Your task to perform on an android device: turn notification dots on Image 0: 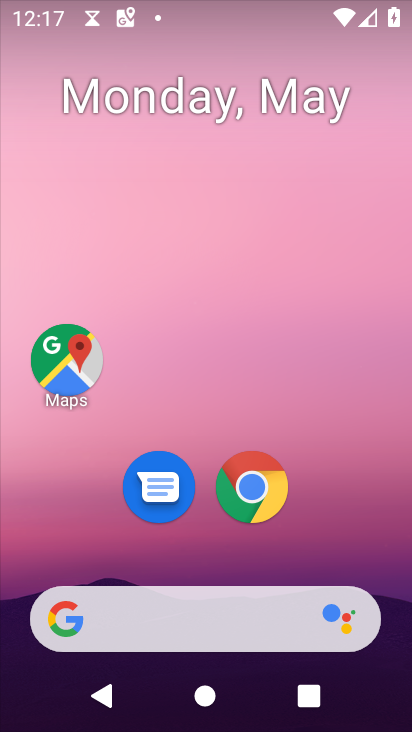
Step 0: drag from (204, 540) to (209, 43)
Your task to perform on an android device: turn notification dots on Image 1: 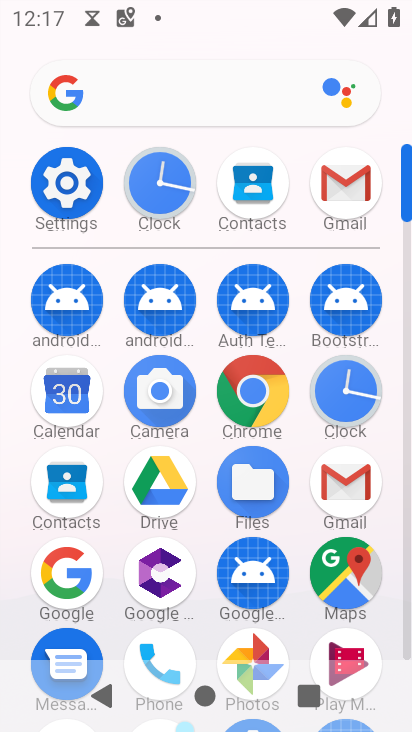
Step 1: click (72, 188)
Your task to perform on an android device: turn notification dots on Image 2: 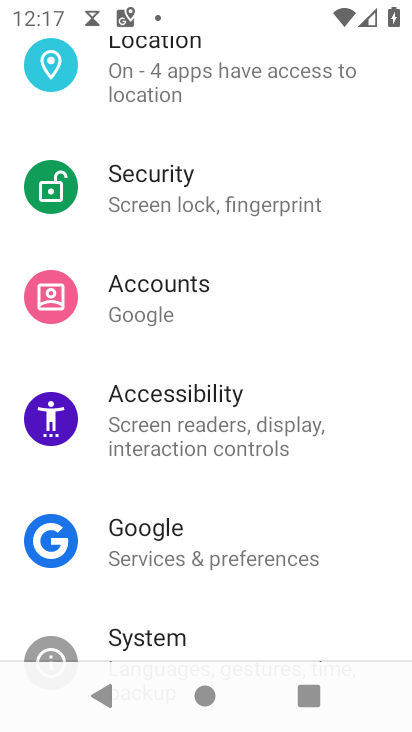
Step 2: drag from (213, 232) to (318, 701)
Your task to perform on an android device: turn notification dots on Image 3: 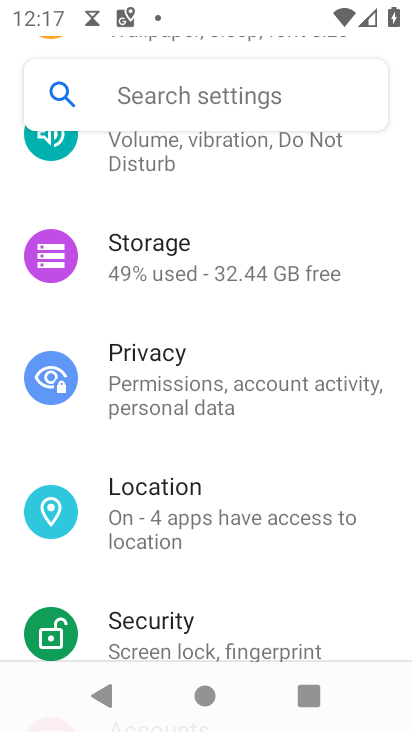
Step 3: drag from (315, 298) to (295, 720)
Your task to perform on an android device: turn notification dots on Image 4: 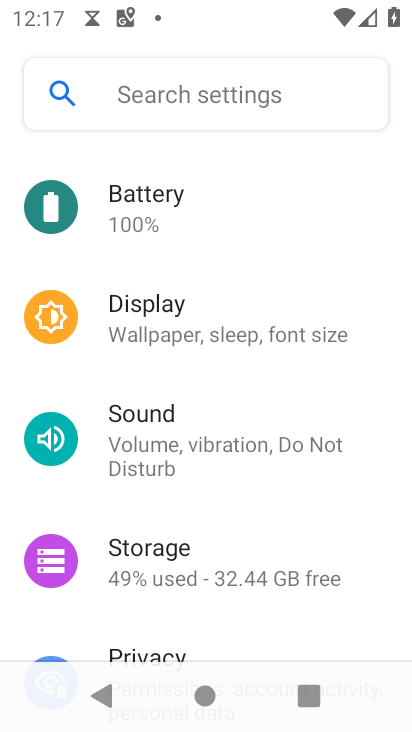
Step 4: drag from (218, 357) to (228, 659)
Your task to perform on an android device: turn notification dots on Image 5: 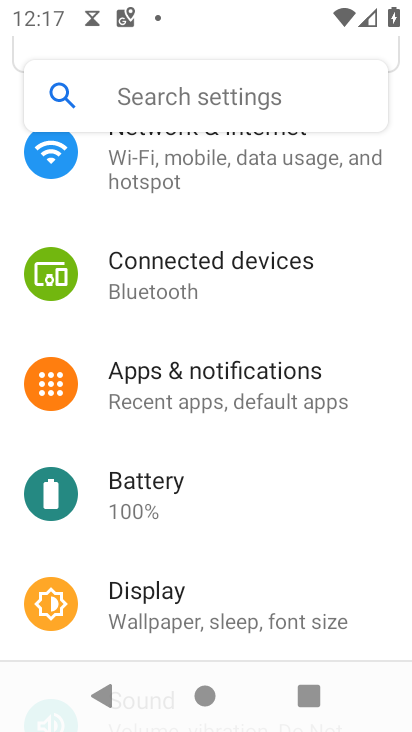
Step 5: click (234, 375)
Your task to perform on an android device: turn notification dots on Image 6: 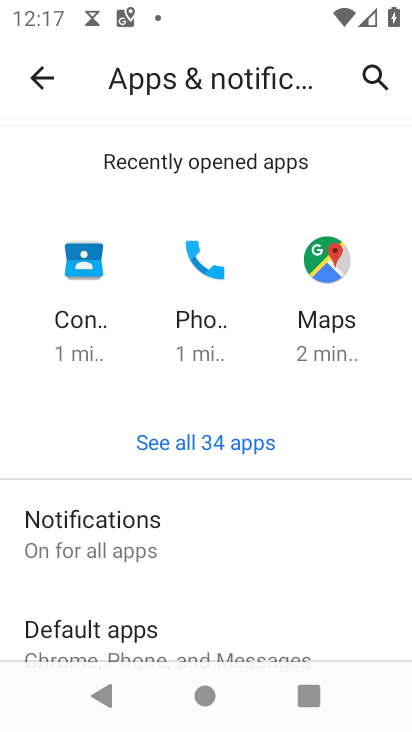
Step 6: click (224, 544)
Your task to perform on an android device: turn notification dots on Image 7: 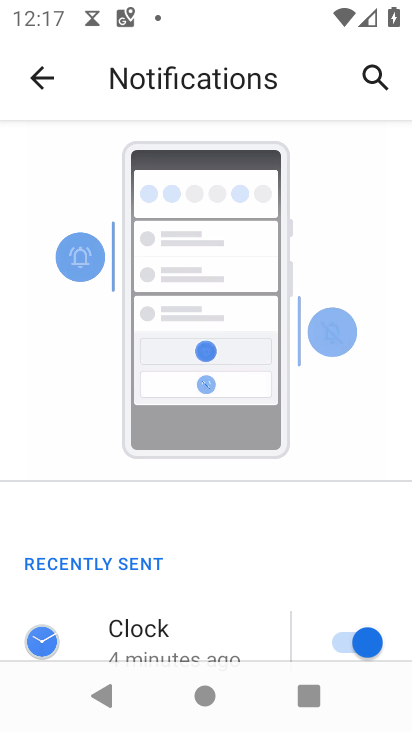
Step 7: drag from (258, 592) to (300, 0)
Your task to perform on an android device: turn notification dots on Image 8: 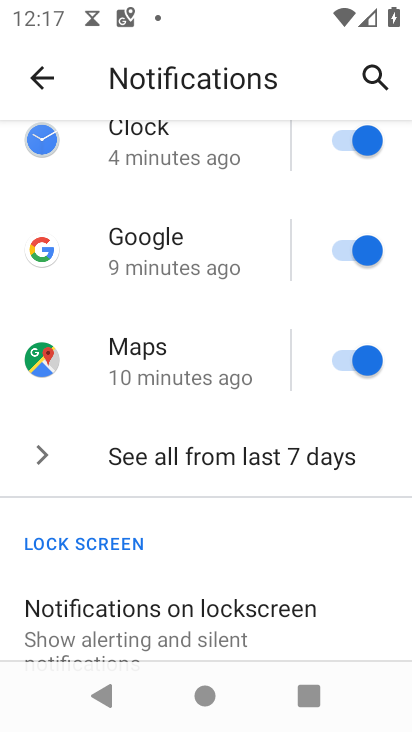
Step 8: drag from (247, 606) to (255, 15)
Your task to perform on an android device: turn notification dots on Image 9: 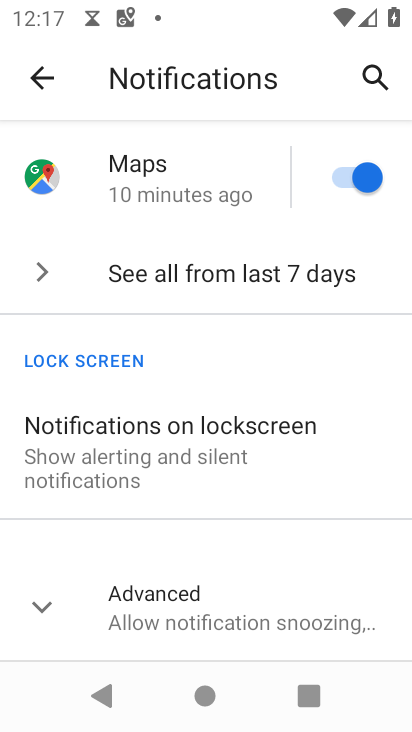
Step 9: click (219, 593)
Your task to perform on an android device: turn notification dots on Image 10: 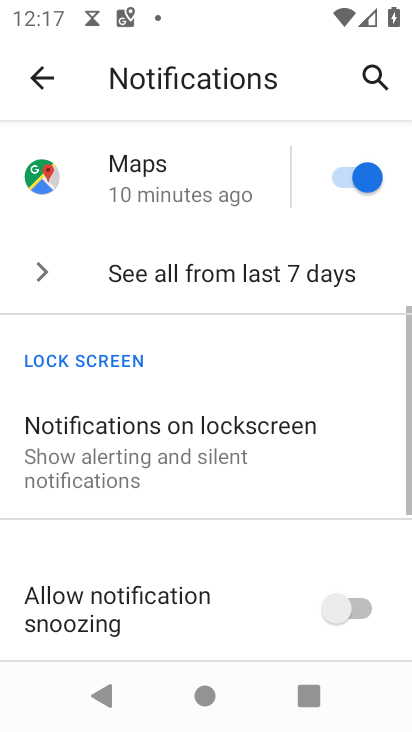
Step 10: task complete